Your task to perform on an android device: Go to eBay Image 0: 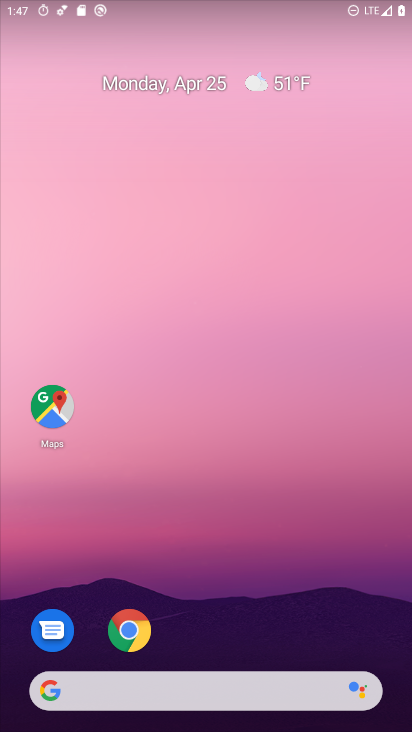
Step 0: drag from (210, 595) to (227, 188)
Your task to perform on an android device: Go to eBay Image 1: 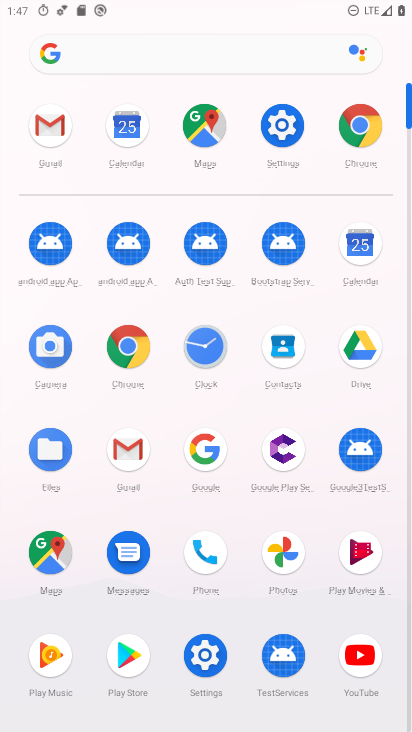
Step 1: click (120, 344)
Your task to perform on an android device: Go to eBay Image 2: 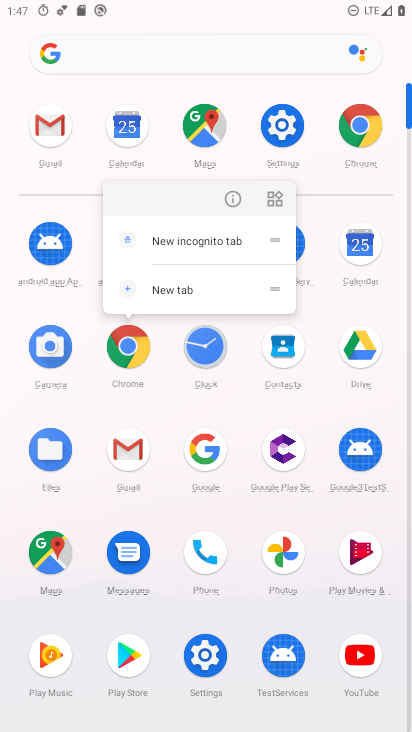
Step 2: click (237, 196)
Your task to perform on an android device: Go to eBay Image 3: 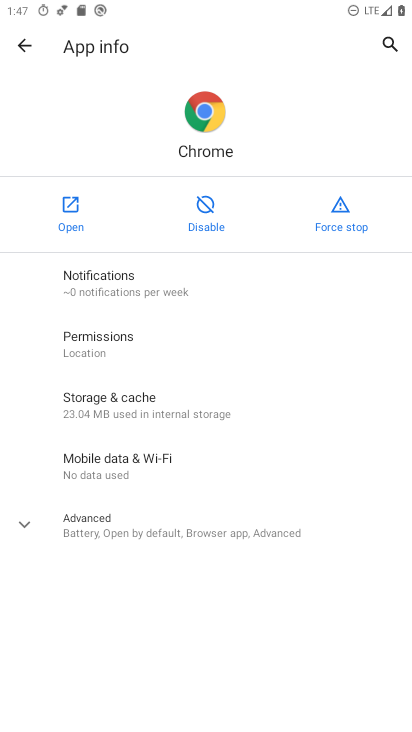
Step 3: click (51, 223)
Your task to perform on an android device: Go to eBay Image 4: 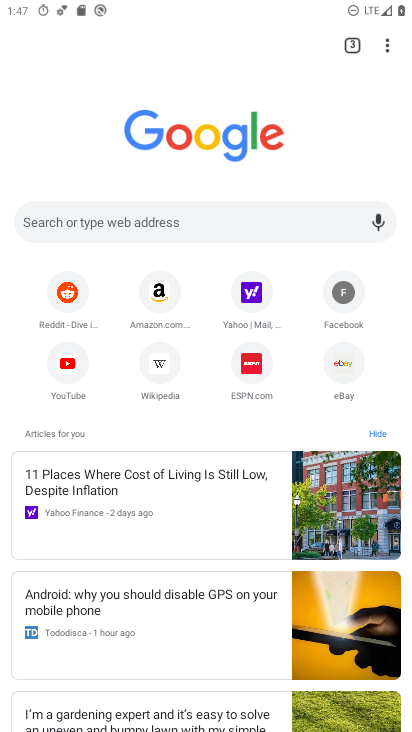
Step 4: click (335, 363)
Your task to perform on an android device: Go to eBay Image 5: 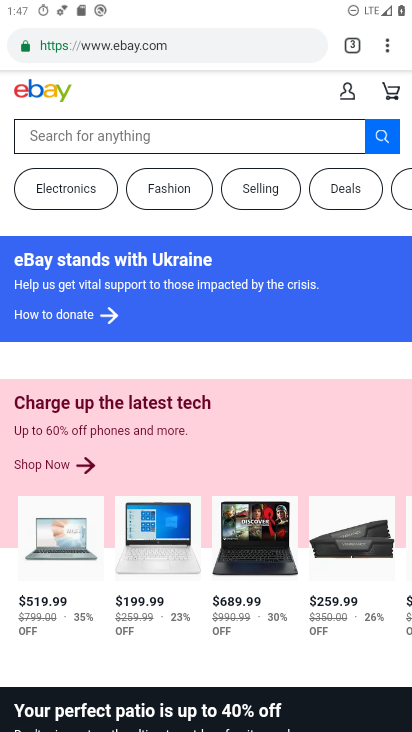
Step 5: task complete